Your task to perform on an android device: empty trash in google photos Image 0: 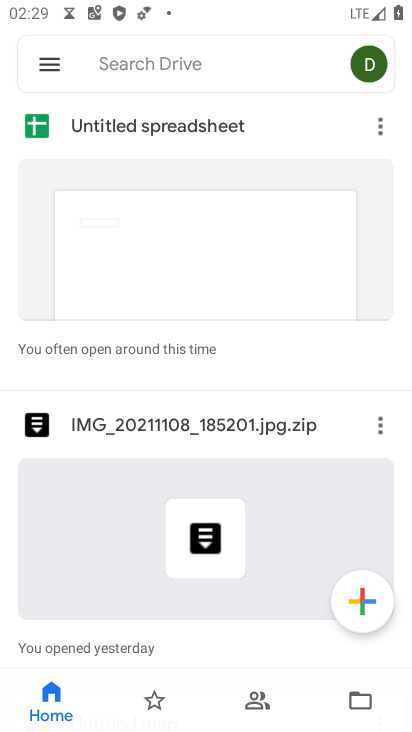
Step 0: press home button
Your task to perform on an android device: empty trash in google photos Image 1: 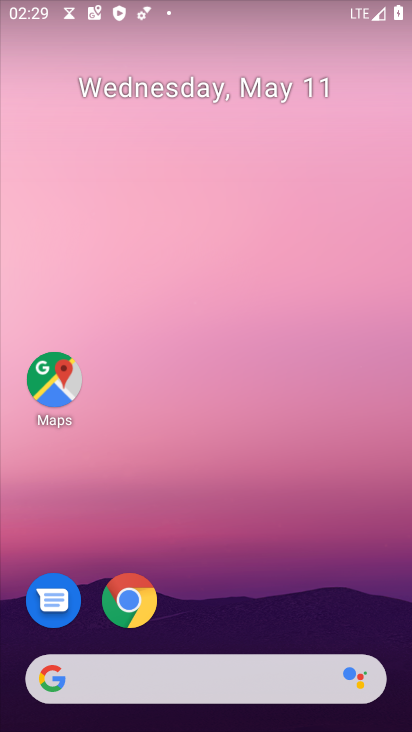
Step 1: drag from (224, 604) to (244, 160)
Your task to perform on an android device: empty trash in google photos Image 2: 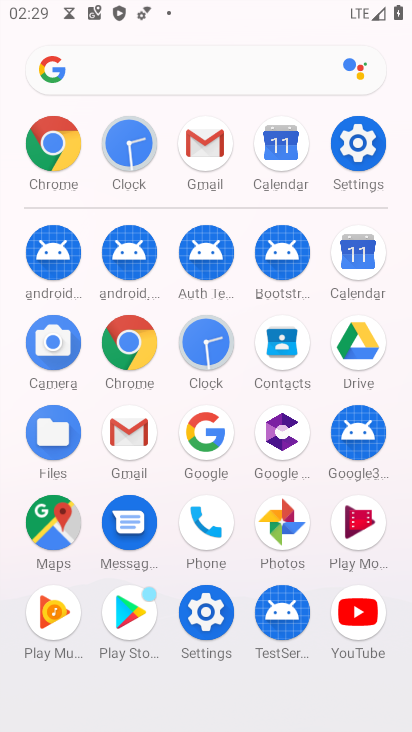
Step 2: click (279, 514)
Your task to perform on an android device: empty trash in google photos Image 3: 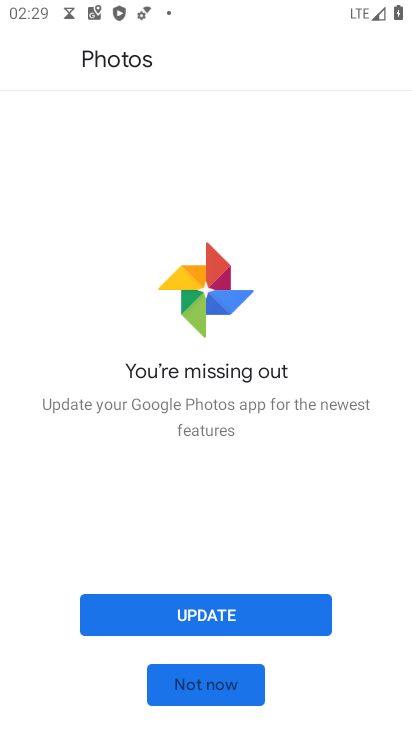
Step 3: click (192, 679)
Your task to perform on an android device: empty trash in google photos Image 4: 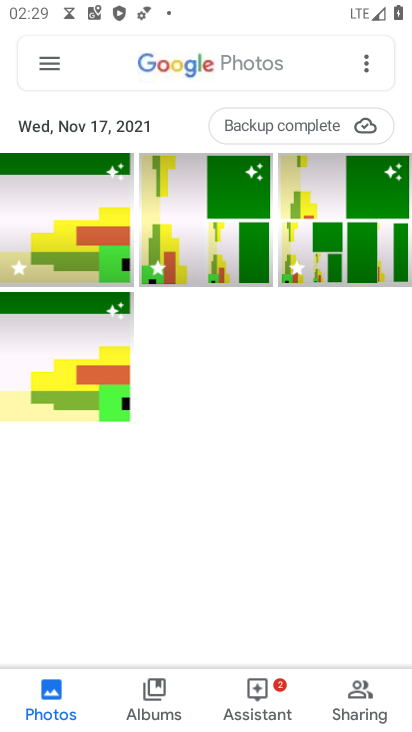
Step 4: click (42, 62)
Your task to perform on an android device: empty trash in google photos Image 5: 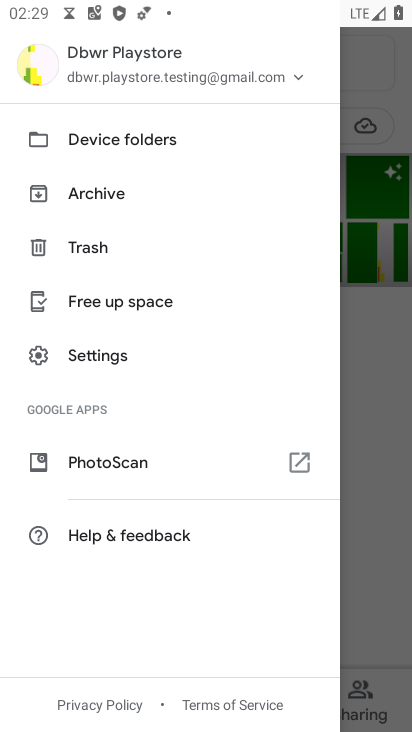
Step 5: click (84, 248)
Your task to perform on an android device: empty trash in google photos Image 6: 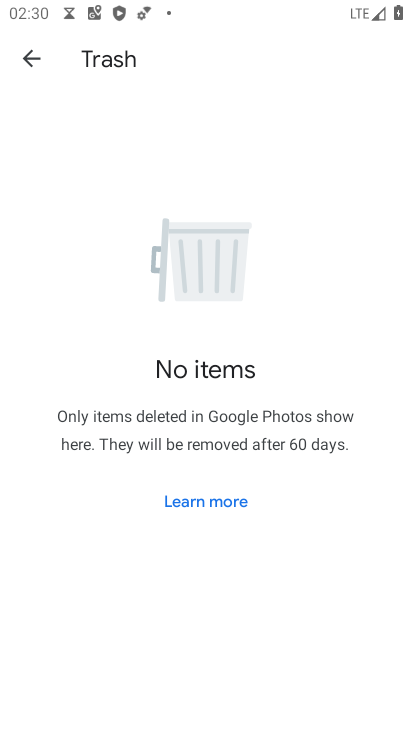
Step 6: task complete